Your task to perform on an android device: all mails in gmail Image 0: 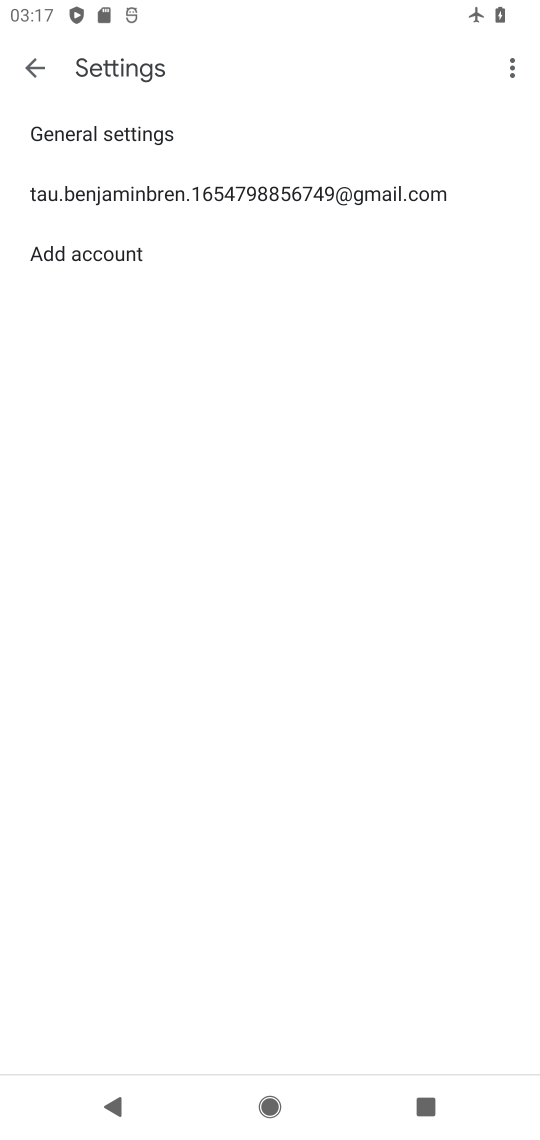
Step 0: press home button
Your task to perform on an android device: all mails in gmail Image 1: 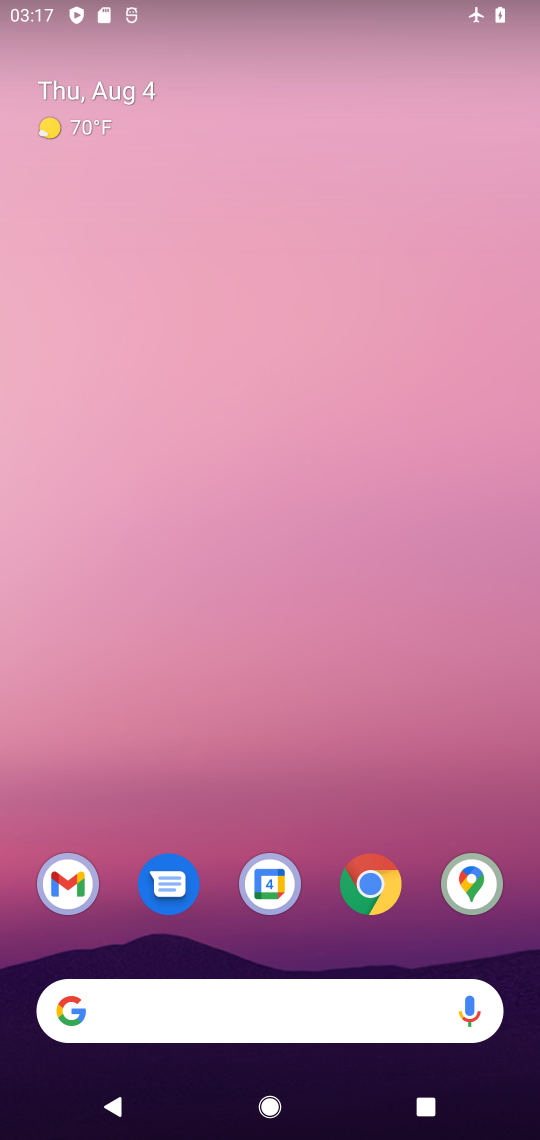
Step 1: drag from (309, 846) to (316, 258)
Your task to perform on an android device: all mails in gmail Image 2: 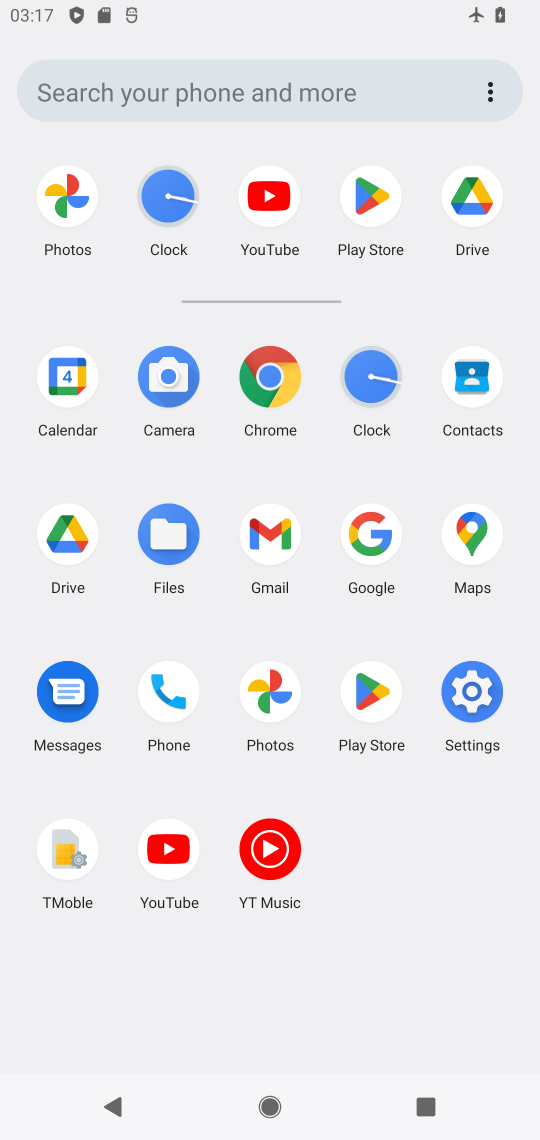
Step 2: click (267, 540)
Your task to perform on an android device: all mails in gmail Image 3: 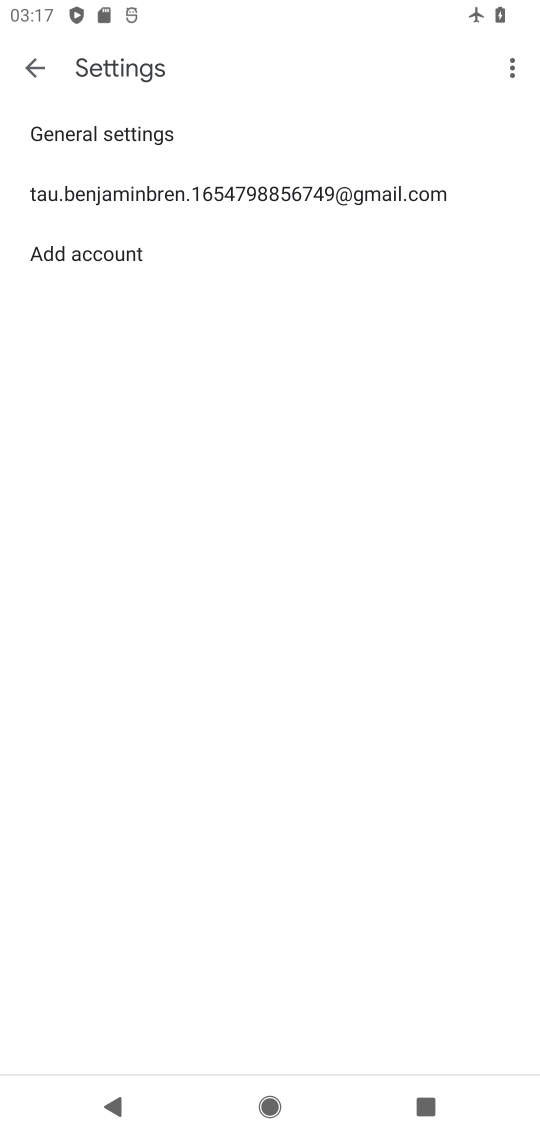
Step 3: press back button
Your task to perform on an android device: all mails in gmail Image 4: 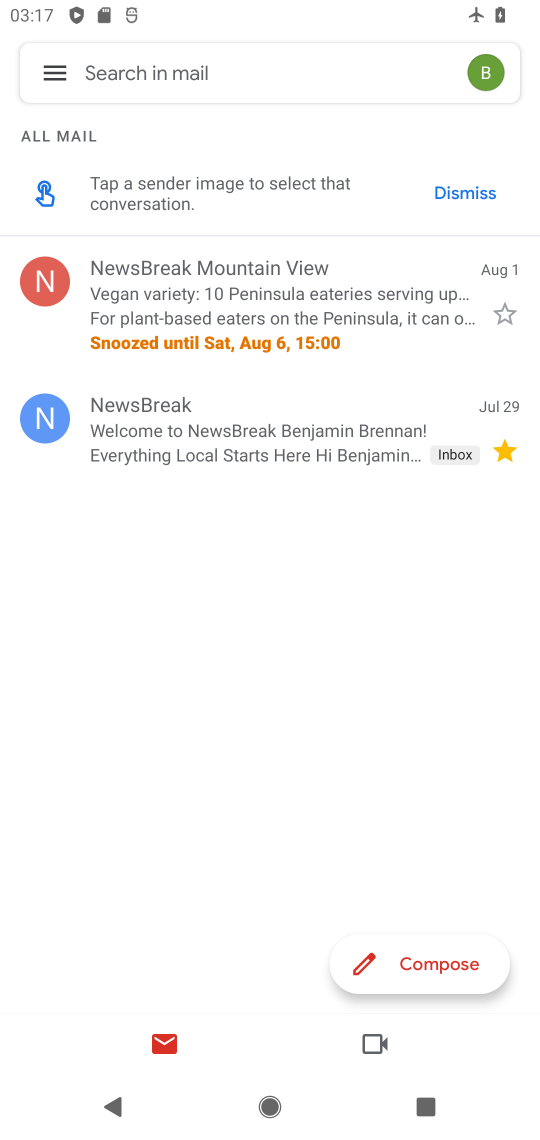
Step 4: click (55, 70)
Your task to perform on an android device: all mails in gmail Image 5: 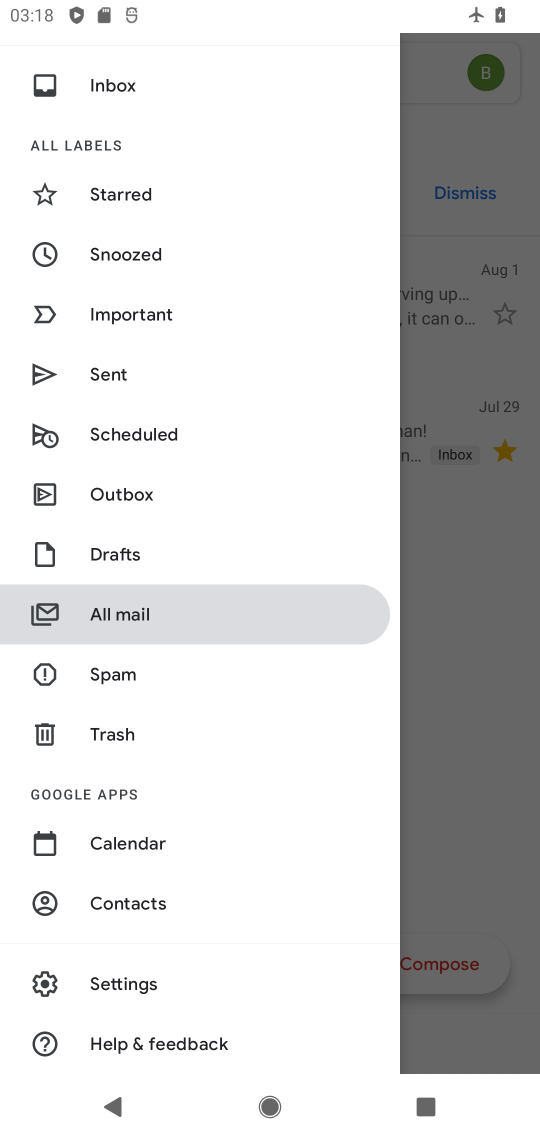
Step 5: click (236, 621)
Your task to perform on an android device: all mails in gmail Image 6: 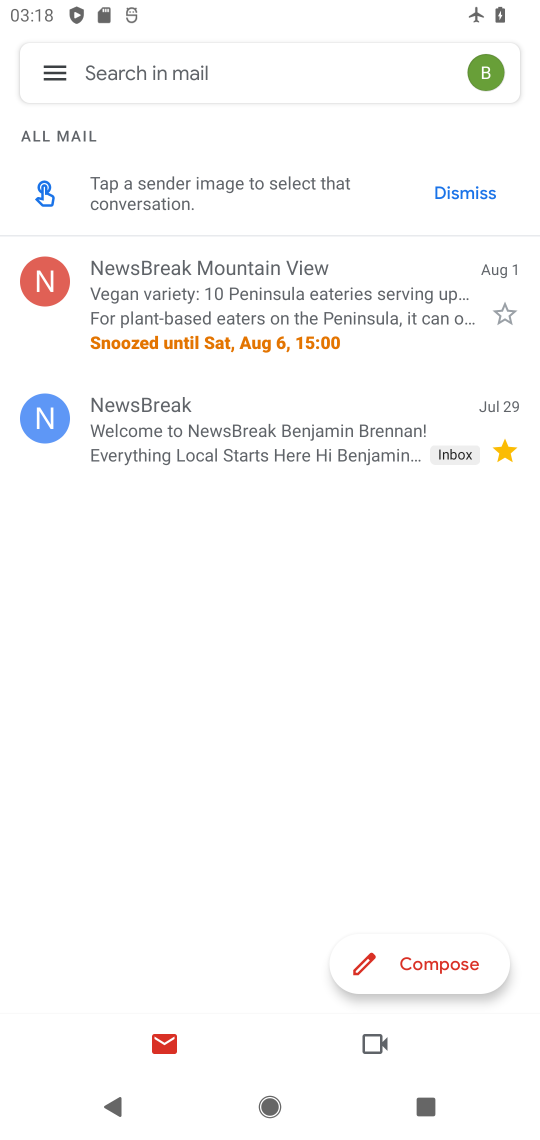
Step 6: task complete